Your task to perform on an android device: change text size in settings app Image 0: 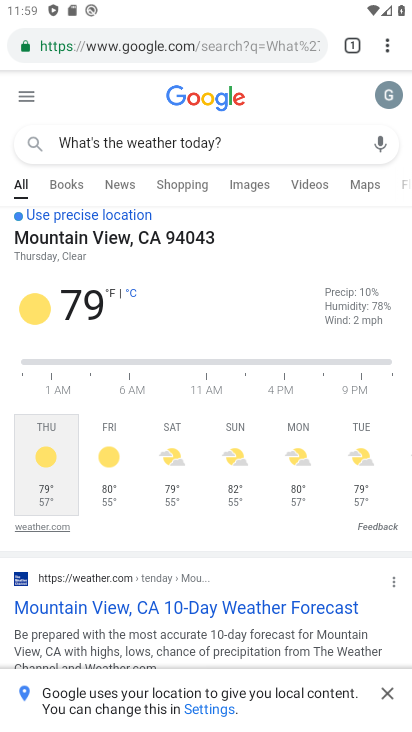
Step 0: press home button
Your task to perform on an android device: change text size in settings app Image 1: 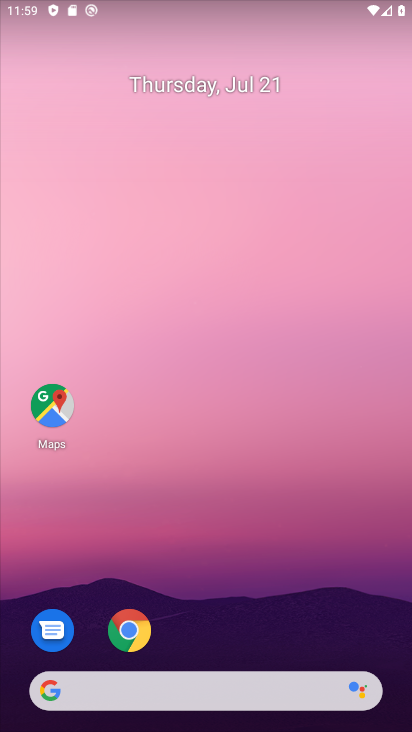
Step 1: drag from (211, 633) to (187, 239)
Your task to perform on an android device: change text size in settings app Image 2: 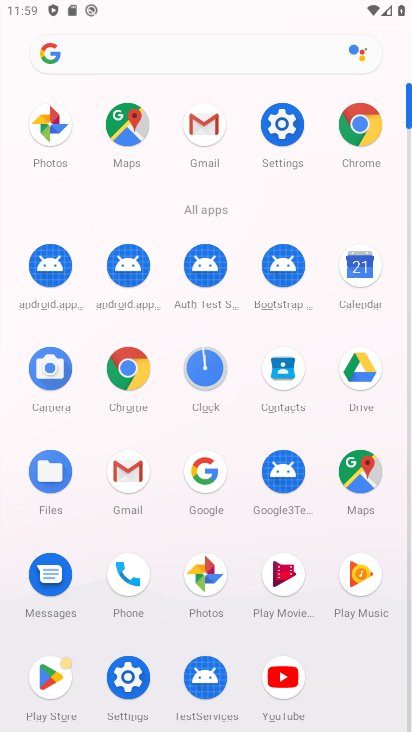
Step 2: click (275, 121)
Your task to perform on an android device: change text size in settings app Image 3: 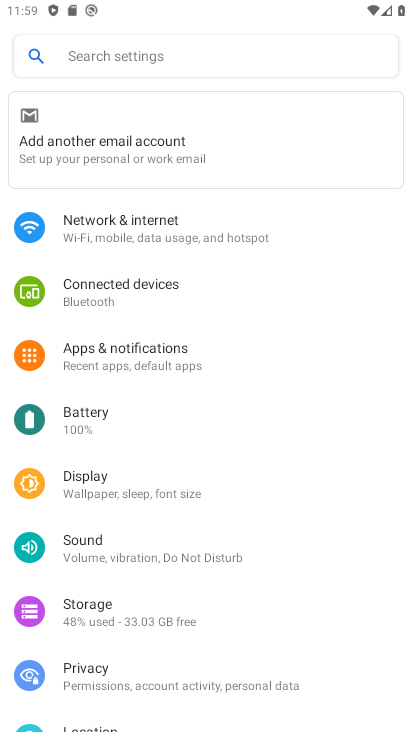
Step 3: click (202, 489)
Your task to perform on an android device: change text size in settings app Image 4: 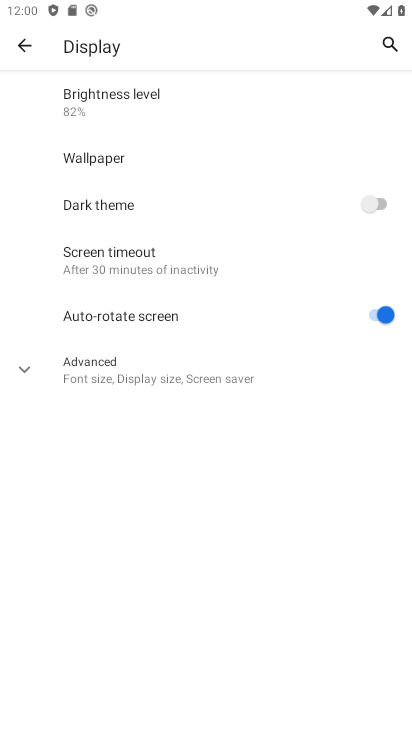
Step 4: click (207, 373)
Your task to perform on an android device: change text size in settings app Image 5: 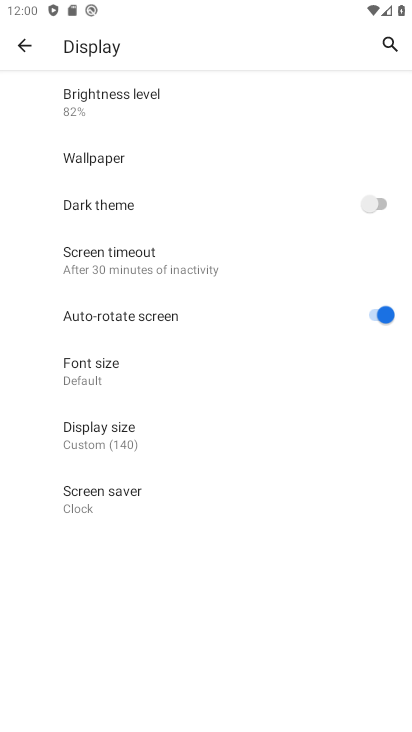
Step 5: click (207, 369)
Your task to perform on an android device: change text size in settings app Image 6: 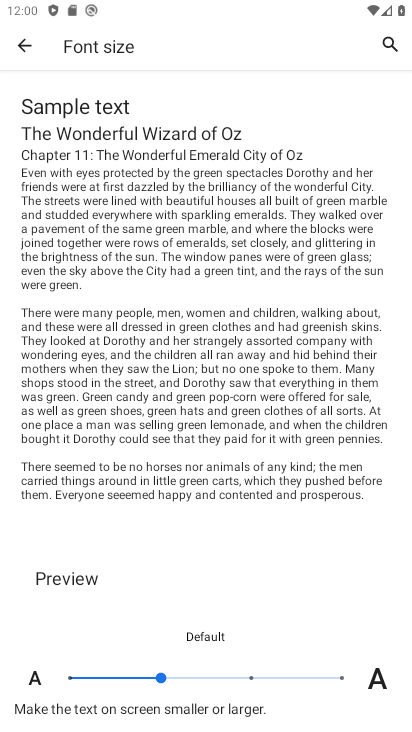
Step 6: click (248, 680)
Your task to perform on an android device: change text size in settings app Image 7: 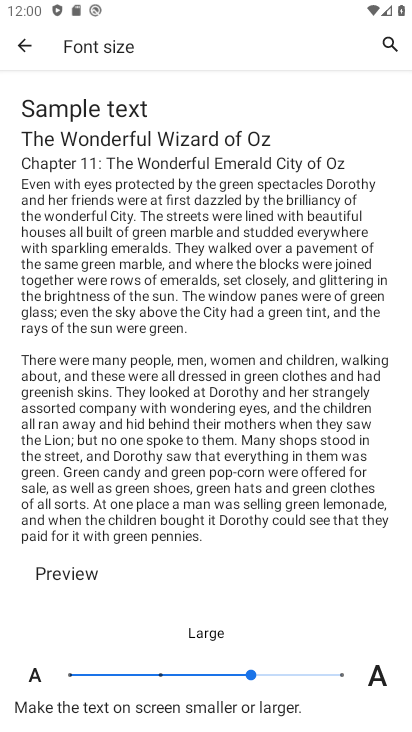
Step 7: task complete